Your task to perform on an android device: turn on location history Image 0: 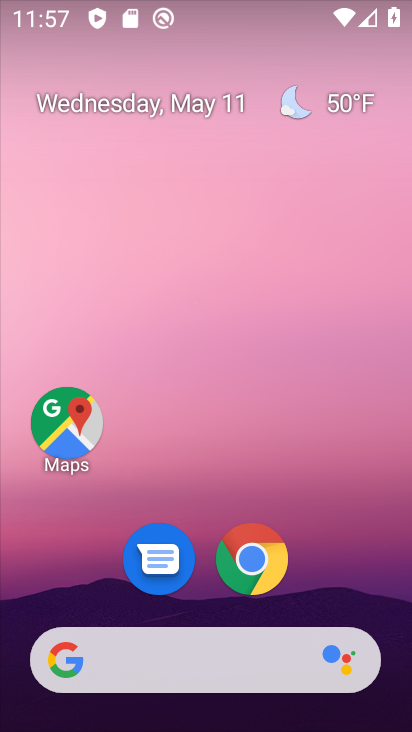
Step 0: drag from (345, 600) to (349, 47)
Your task to perform on an android device: turn on location history Image 1: 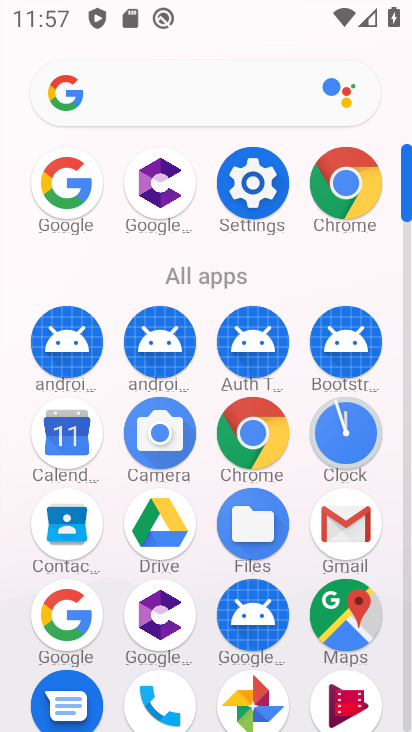
Step 1: click (258, 187)
Your task to perform on an android device: turn on location history Image 2: 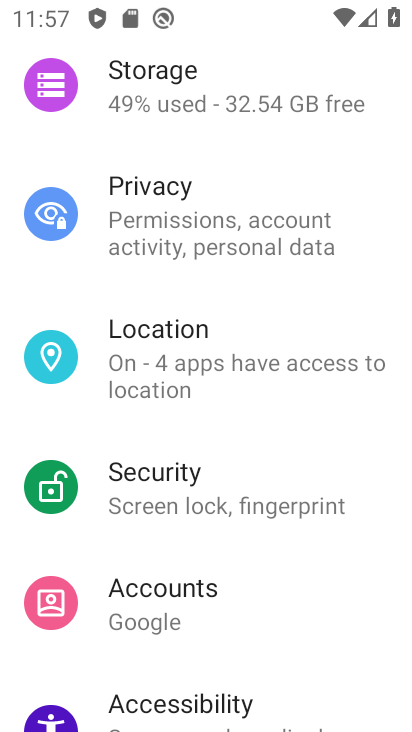
Step 2: click (204, 354)
Your task to perform on an android device: turn on location history Image 3: 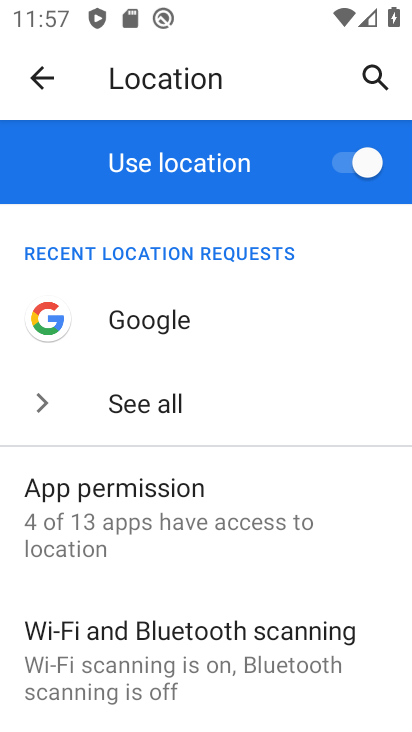
Step 3: drag from (230, 610) to (308, 241)
Your task to perform on an android device: turn on location history Image 4: 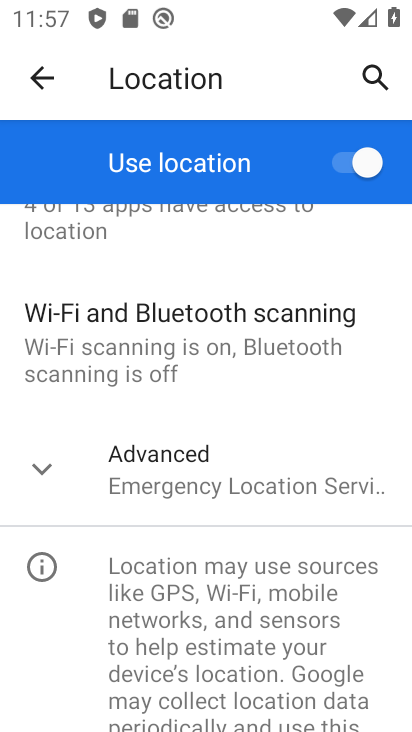
Step 4: click (166, 488)
Your task to perform on an android device: turn on location history Image 5: 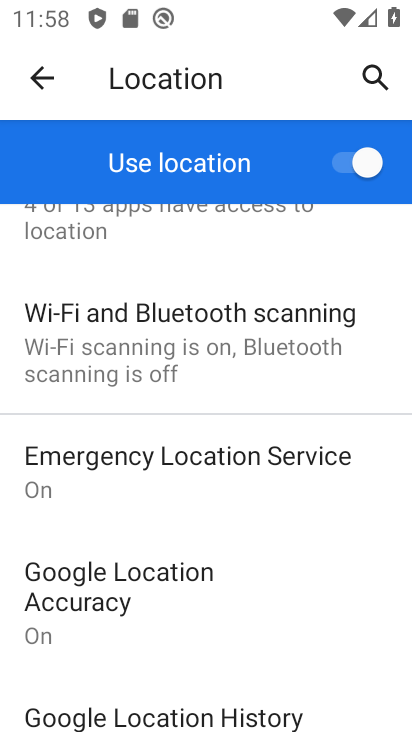
Step 5: drag from (179, 631) to (276, 344)
Your task to perform on an android device: turn on location history Image 6: 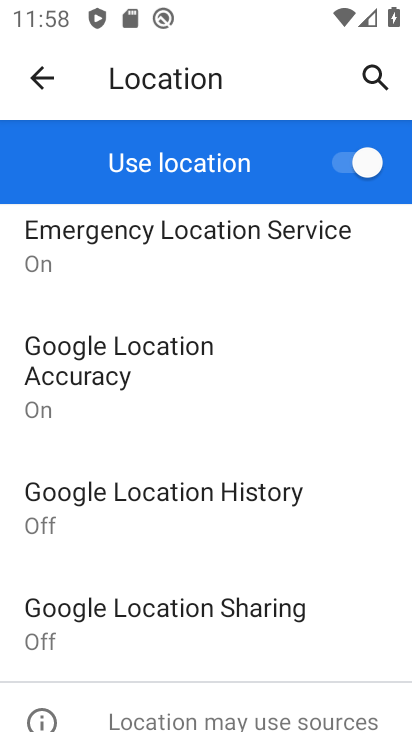
Step 6: click (205, 521)
Your task to perform on an android device: turn on location history Image 7: 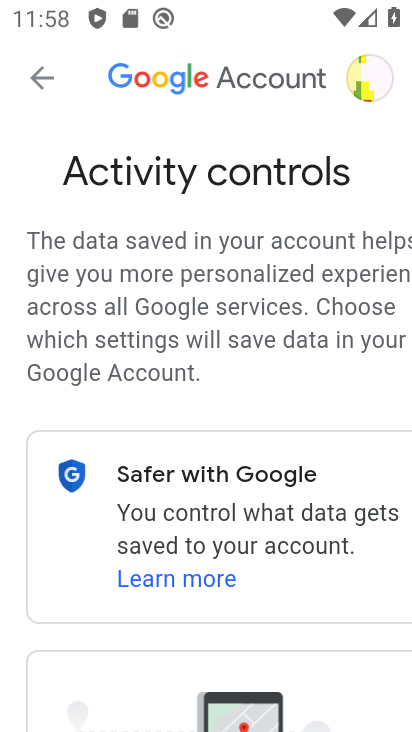
Step 7: task complete